Your task to perform on an android device: Open Android settings Image 0: 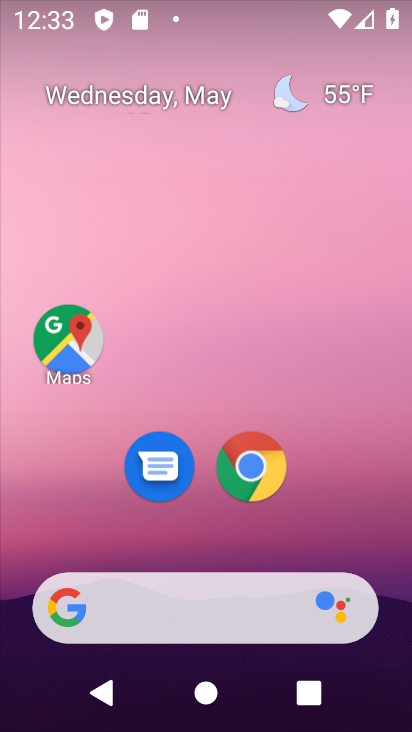
Step 0: drag from (350, 516) to (247, 122)
Your task to perform on an android device: Open Android settings Image 1: 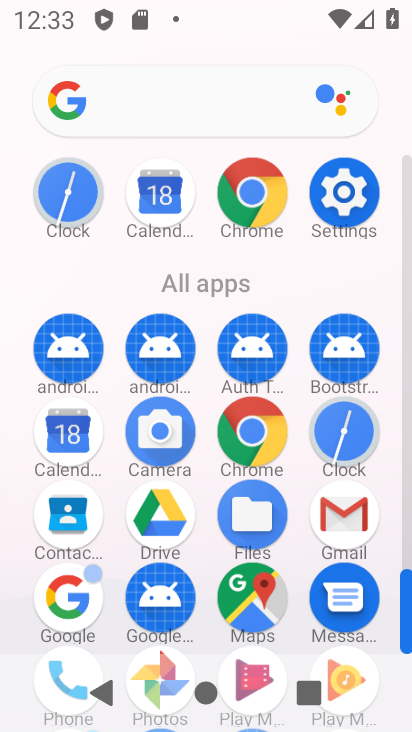
Step 1: click (344, 192)
Your task to perform on an android device: Open Android settings Image 2: 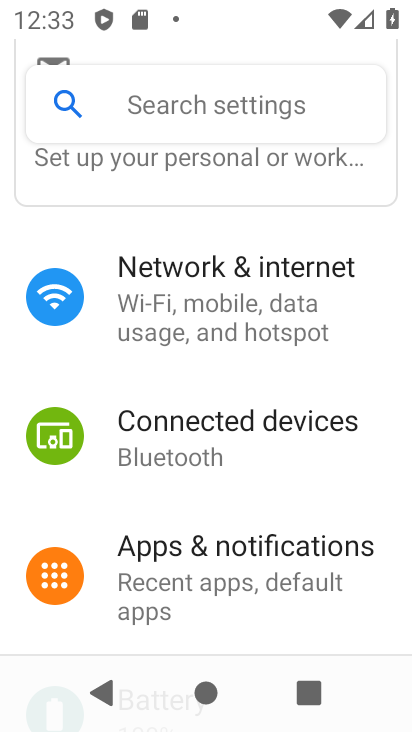
Step 2: task complete